Your task to perform on an android device: change the clock style Image 0: 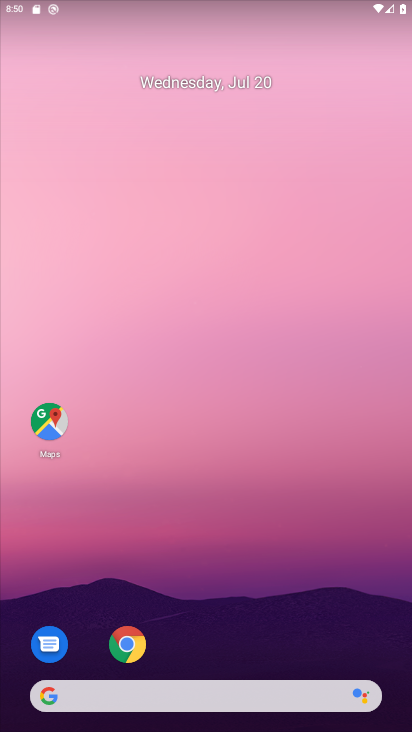
Step 0: drag from (189, 524) to (149, 186)
Your task to perform on an android device: change the clock style Image 1: 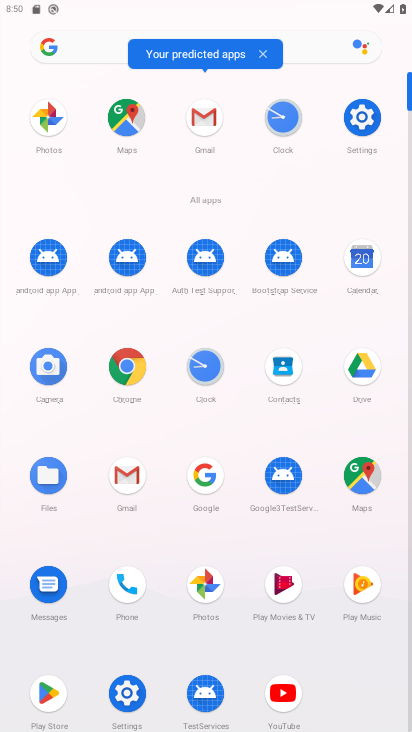
Step 1: click (280, 121)
Your task to perform on an android device: change the clock style Image 2: 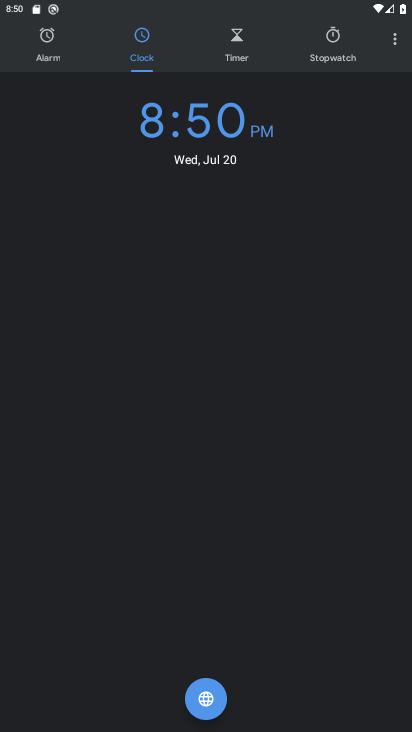
Step 2: click (392, 43)
Your task to perform on an android device: change the clock style Image 3: 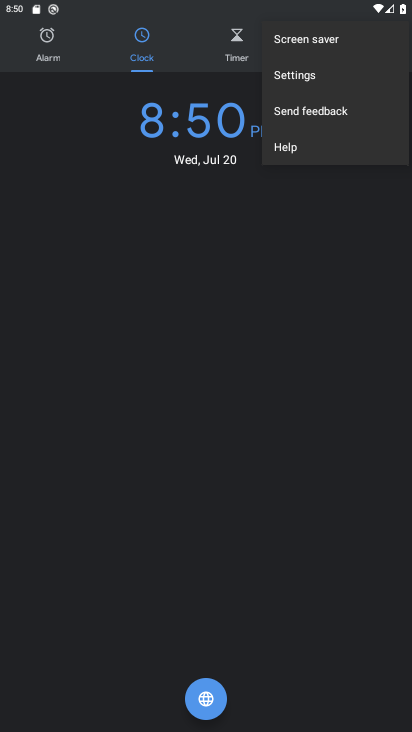
Step 3: click (304, 71)
Your task to perform on an android device: change the clock style Image 4: 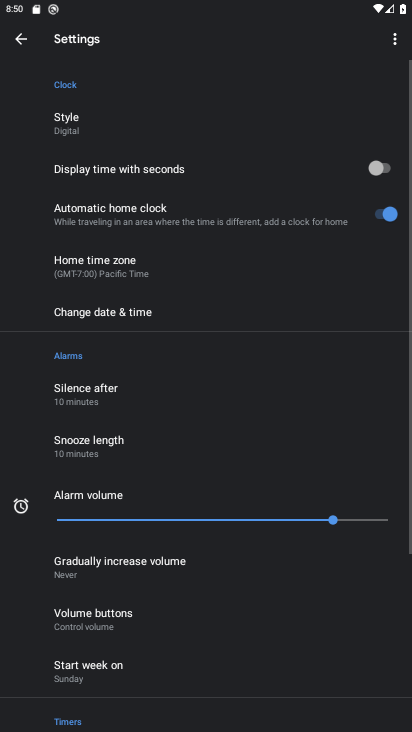
Step 4: click (99, 134)
Your task to perform on an android device: change the clock style Image 5: 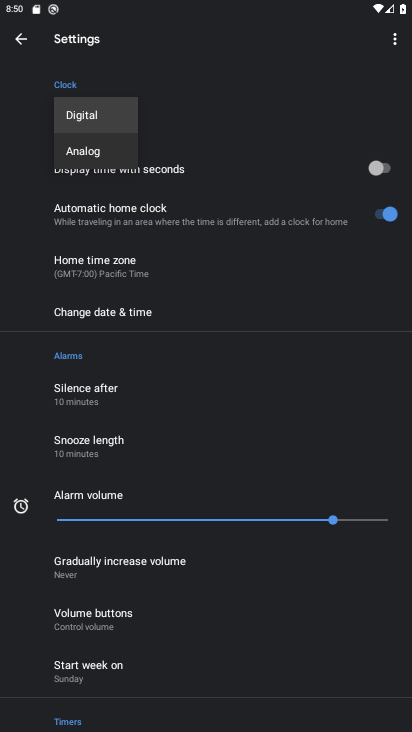
Step 5: click (98, 148)
Your task to perform on an android device: change the clock style Image 6: 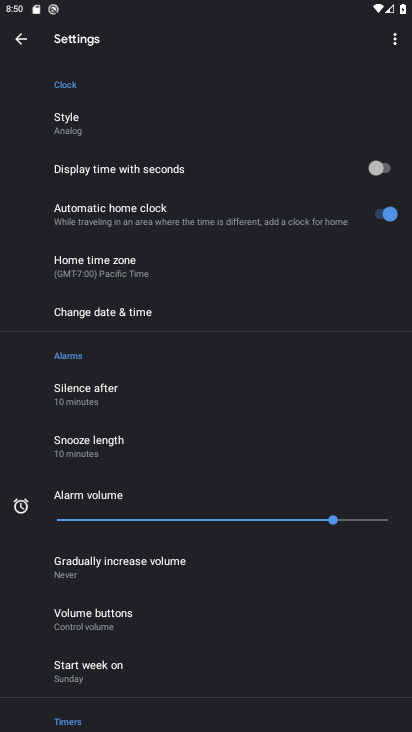
Step 6: task complete